Your task to perform on an android device: What is the recent news? Image 0: 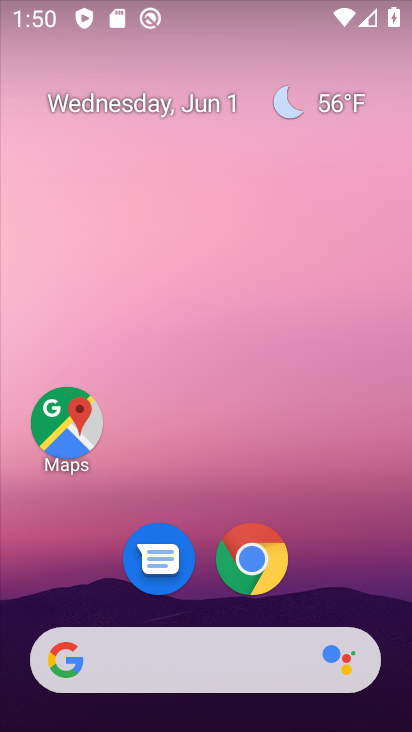
Step 0: drag from (346, 574) to (257, 142)
Your task to perform on an android device: What is the recent news? Image 1: 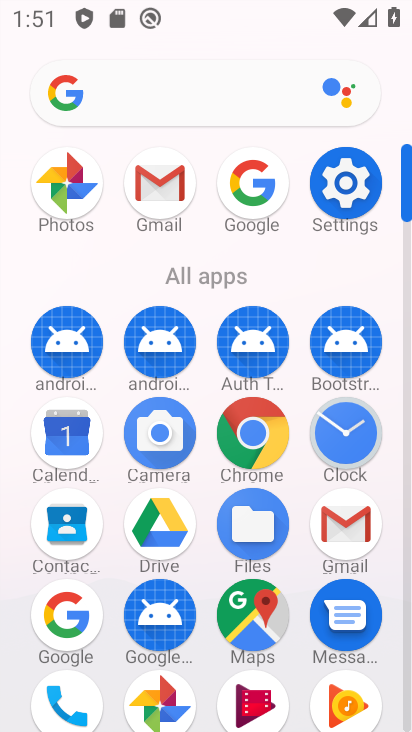
Step 1: click (248, 185)
Your task to perform on an android device: What is the recent news? Image 2: 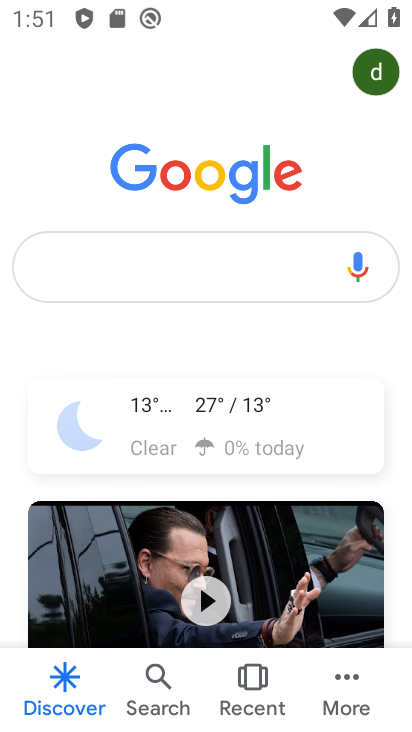
Step 2: click (200, 284)
Your task to perform on an android device: What is the recent news? Image 3: 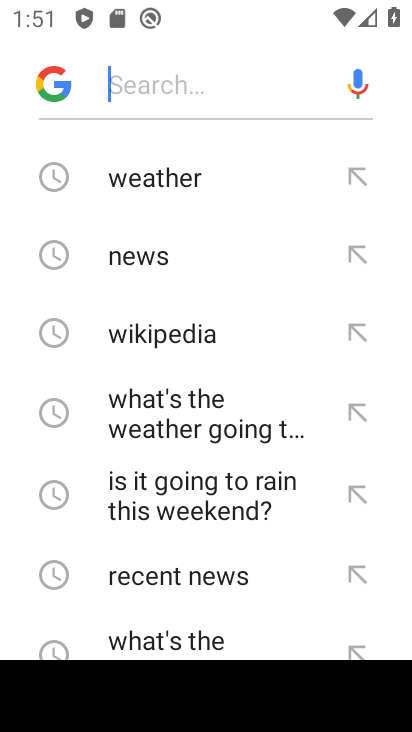
Step 3: type "recent news"
Your task to perform on an android device: What is the recent news? Image 4: 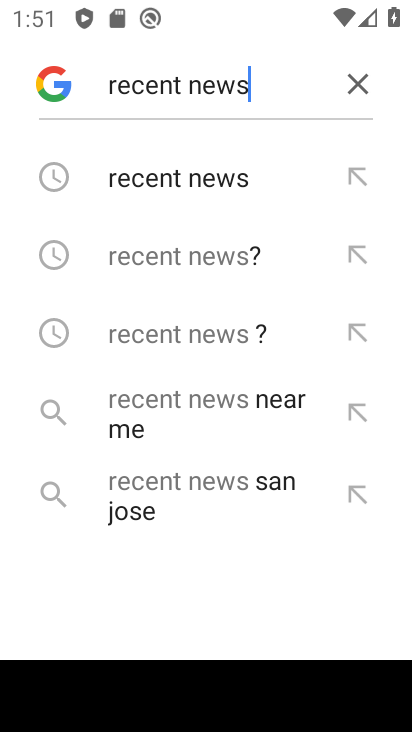
Step 4: click (203, 187)
Your task to perform on an android device: What is the recent news? Image 5: 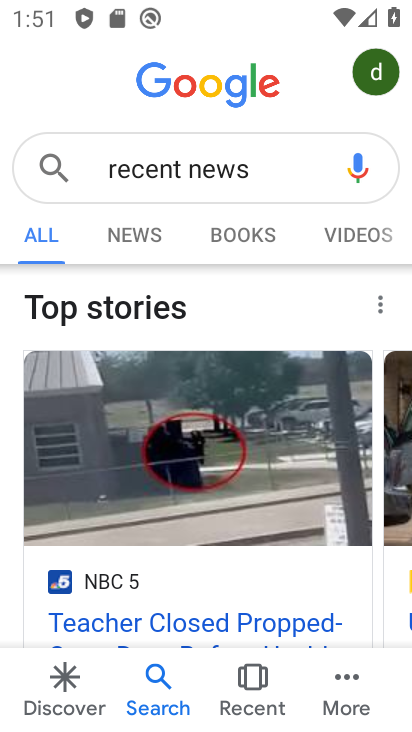
Step 5: task complete